Your task to perform on an android device: Open display settings Image 0: 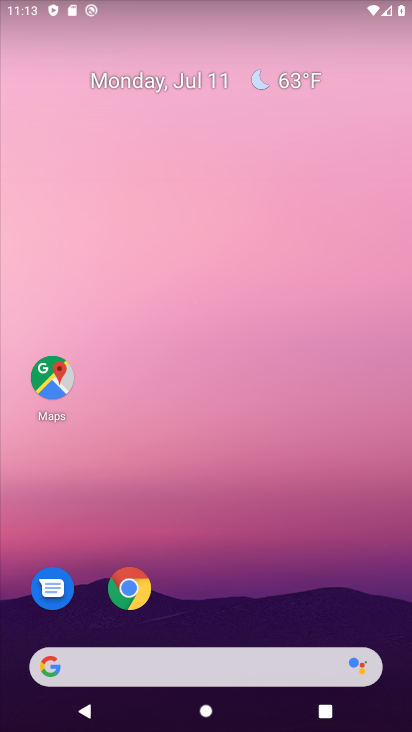
Step 0: drag from (226, 724) to (236, 106)
Your task to perform on an android device: Open display settings Image 1: 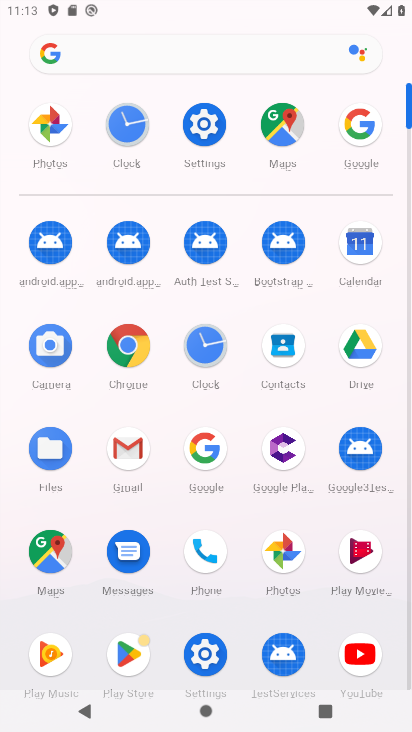
Step 1: click (209, 118)
Your task to perform on an android device: Open display settings Image 2: 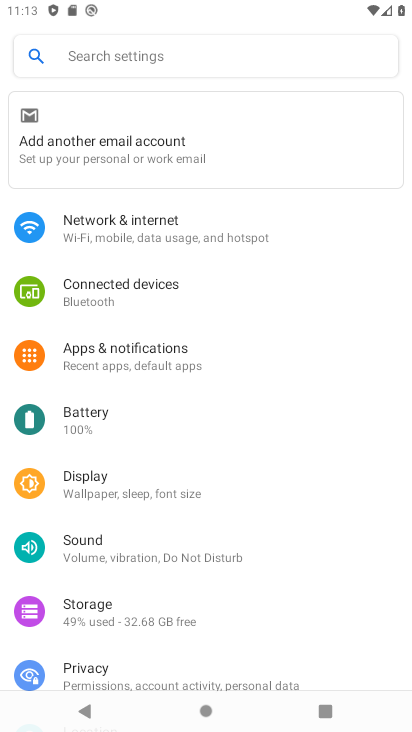
Step 2: click (77, 482)
Your task to perform on an android device: Open display settings Image 3: 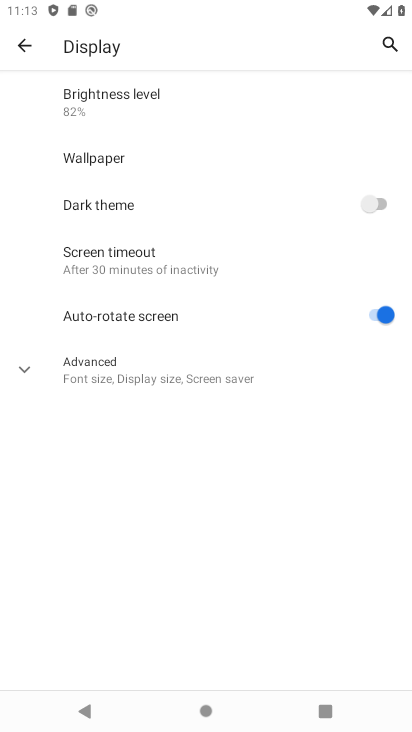
Step 3: task complete